Your task to perform on an android device: Go to settings Image 0: 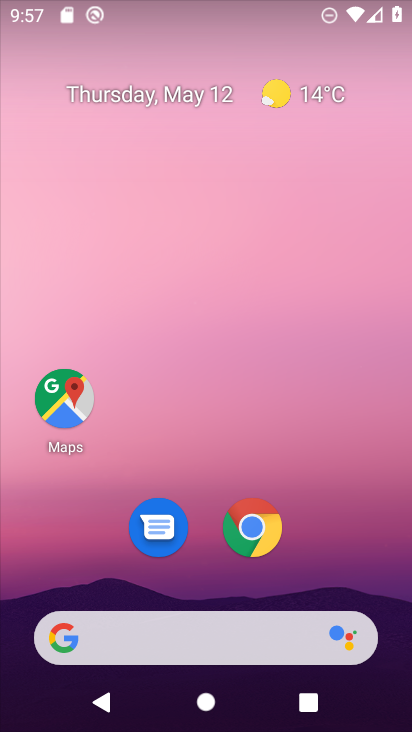
Step 0: drag from (360, 567) to (393, 69)
Your task to perform on an android device: Go to settings Image 1: 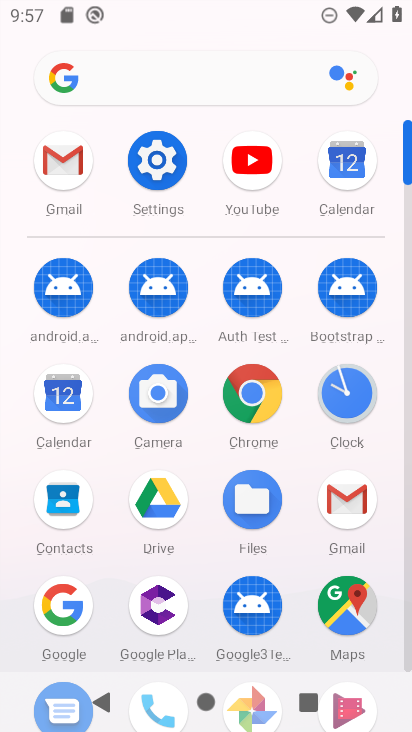
Step 1: click (174, 156)
Your task to perform on an android device: Go to settings Image 2: 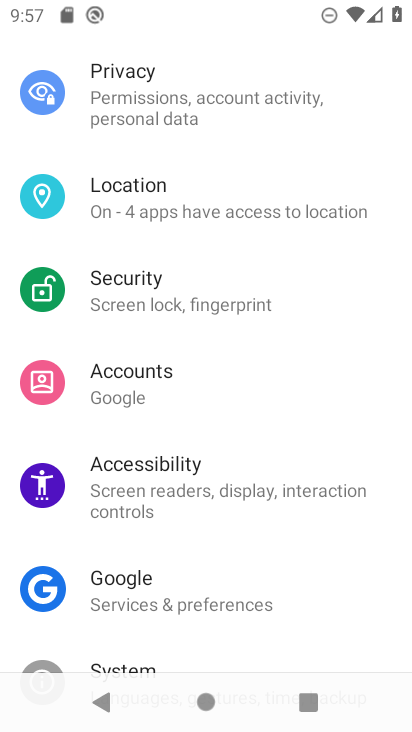
Step 2: task complete